Your task to perform on an android device: Open the web browser Image 0: 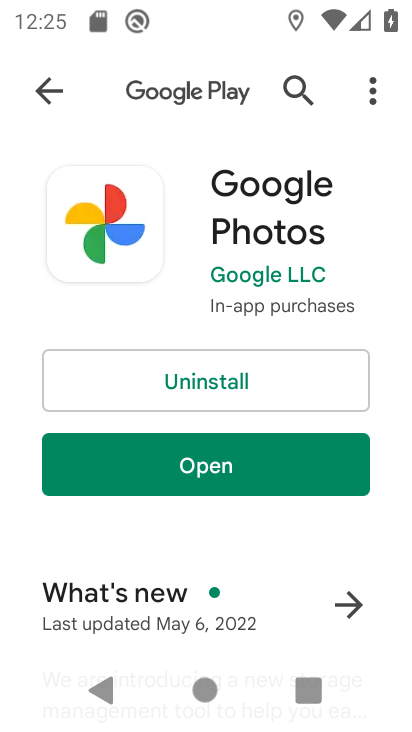
Step 0: press home button
Your task to perform on an android device: Open the web browser Image 1: 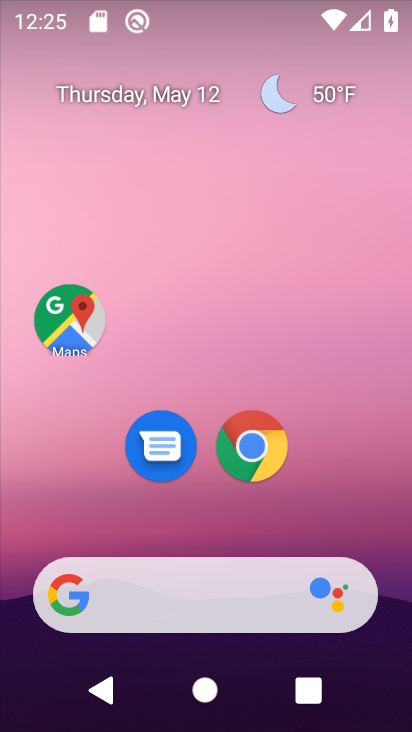
Step 1: click (253, 442)
Your task to perform on an android device: Open the web browser Image 2: 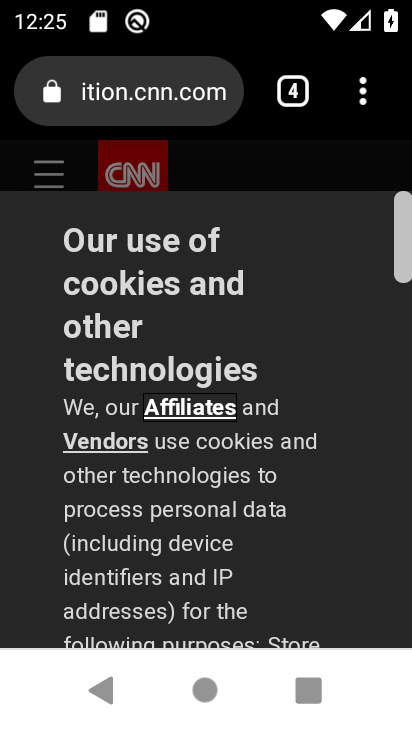
Step 2: task complete